Your task to perform on an android device: Go to settings Image 0: 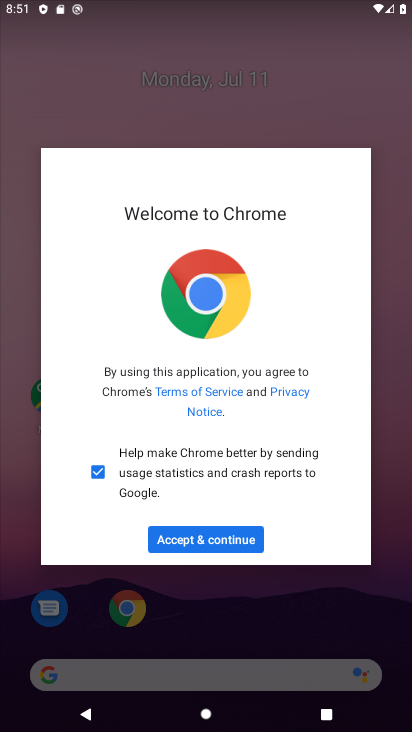
Step 0: press home button
Your task to perform on an android device: Go to settings Image 1: 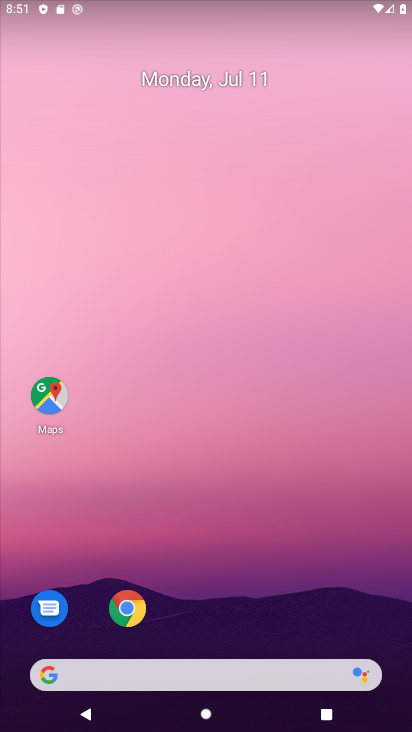
Step 1: drag from (221, 624) to (281, 205)
Your task to perform on an android device: Go to settings Image 2: 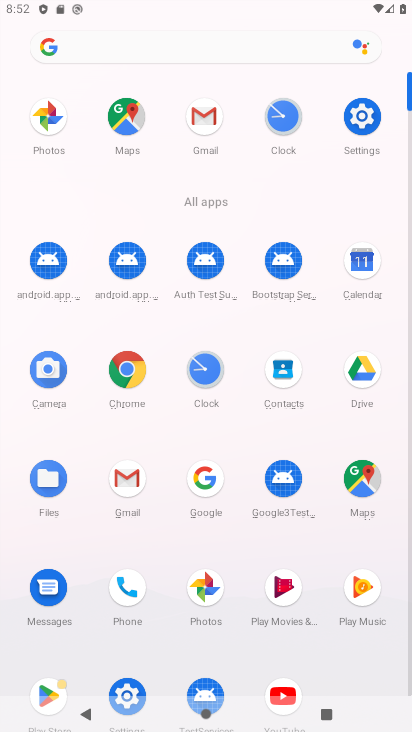
Step 2: drag from (231, 524) to (264, 241)
Your task to perform on an android device: Go to settings Image 3: 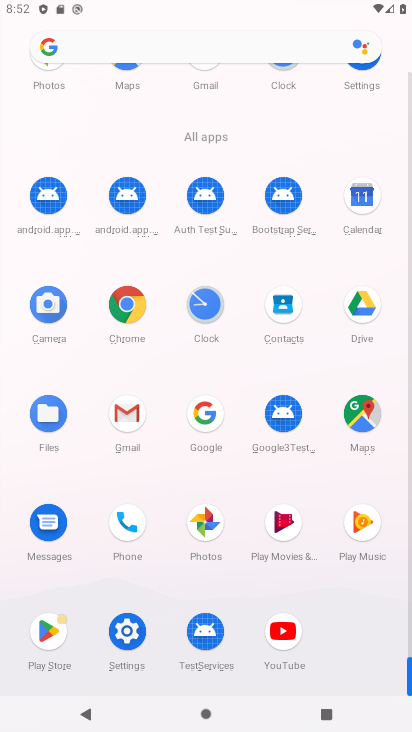
Step 3: click (131, 633)
Your task to perform on an android device: Go to settings Image 4: 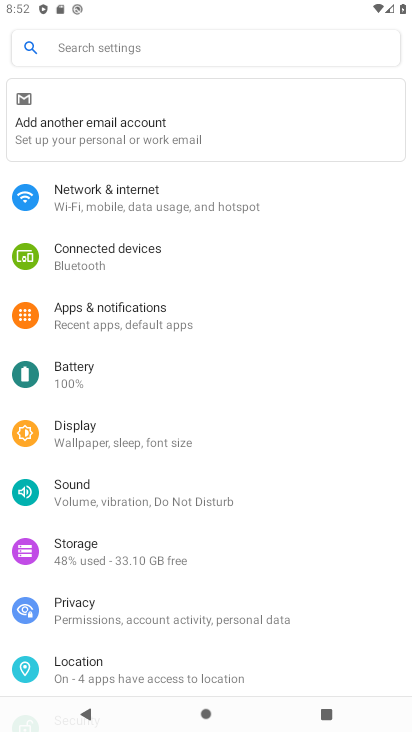
Step 4: task complete